Your task to perform on an android device: Do I have any events today? Image 0: 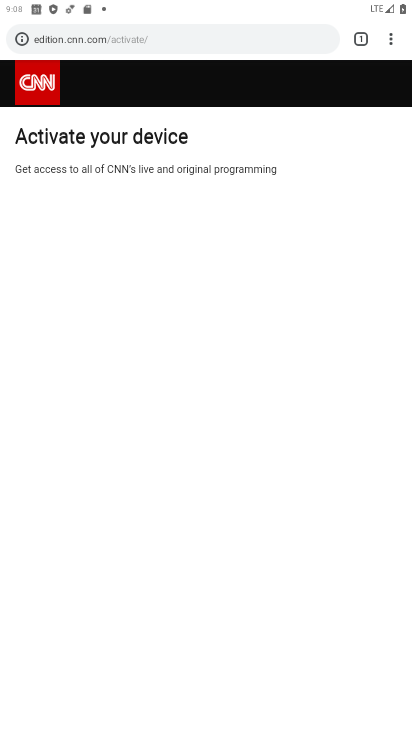
Step 0: press home button
Your task to perform on an android device: Do I have any events today? Image 1: 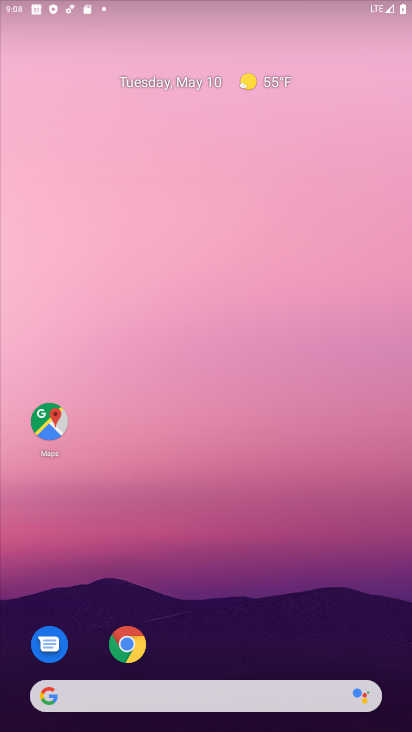
Step 1: drag from (248, 569) to (235, 74)
Your task to perform on an android device: Do I have any events today? Image 2: 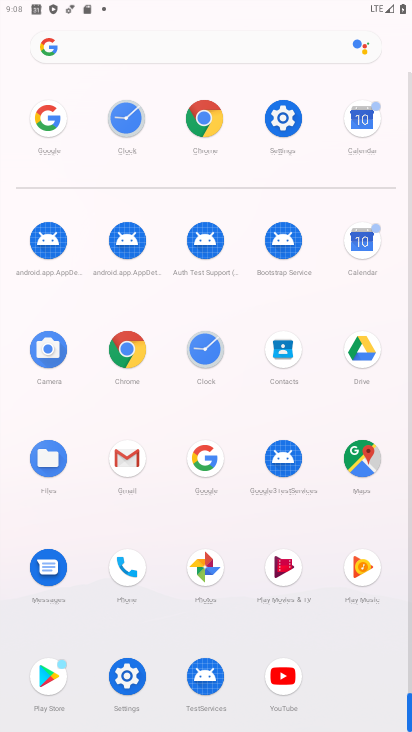
Step 2: click (368, 266)
Your task to perform on an android device: Do I have any events today? Image 3: 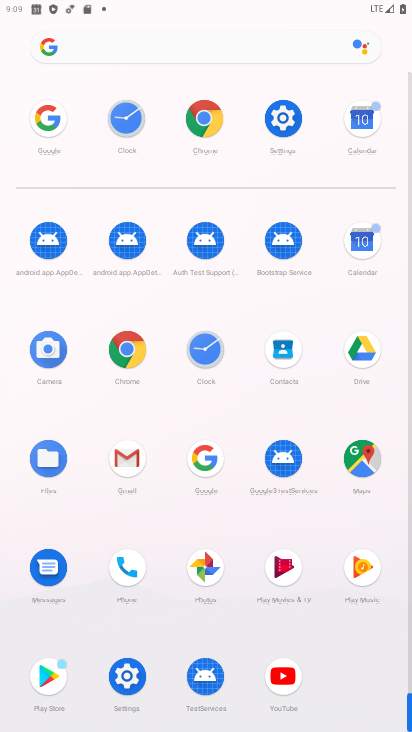
Step 3: click (373, 258)
Your task to perform on an android device: Do I have any events today? Image 4: 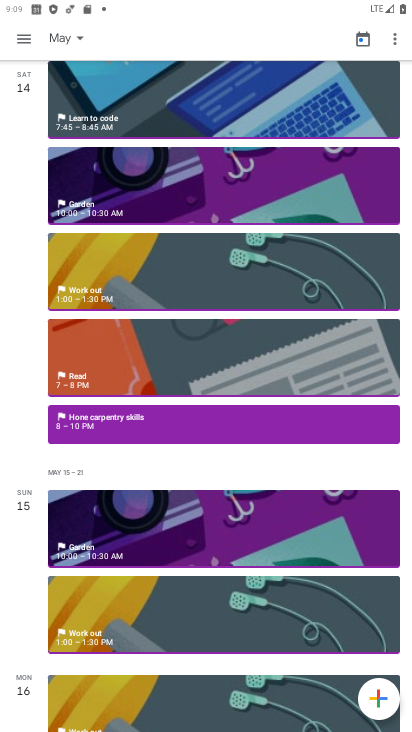
Step 4: drag from (307, 262) to (299, 726)
Your task to perform on an android device: Do I have any events today? Image 5: 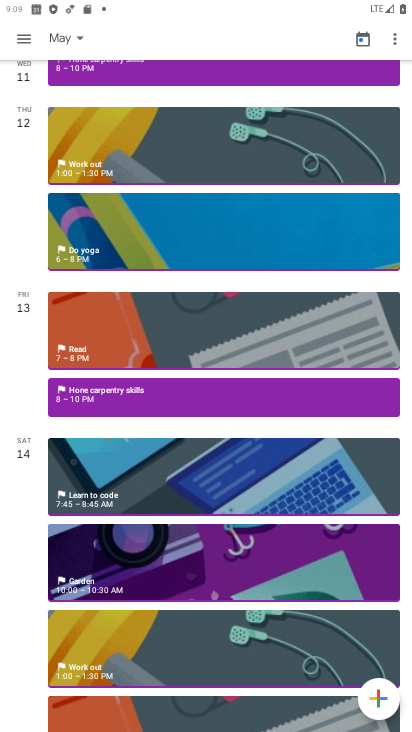
Step 5: click (66, 46)
Your task to perform on an android device: Do I have any events today? Image 6: 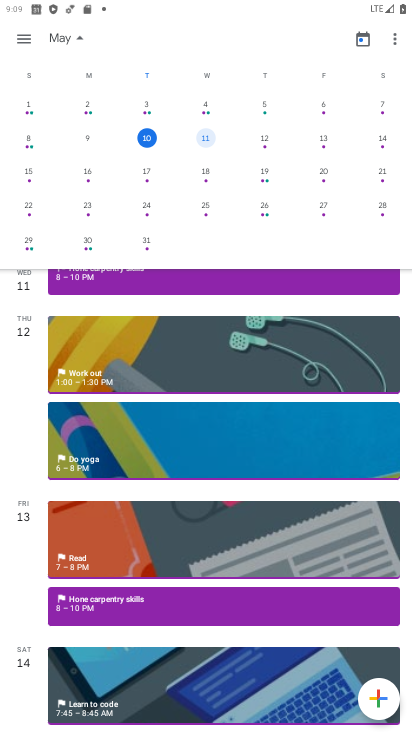
Step 6: click (148, 143)
Your task to perform on an android device: Do I have any events today? Image 7: 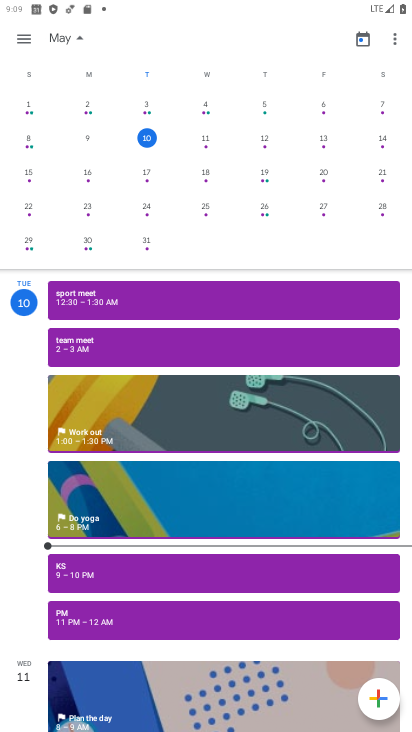
Step 7: task complete